Your task to perform on an android device: Go to CNN.com Image 0: 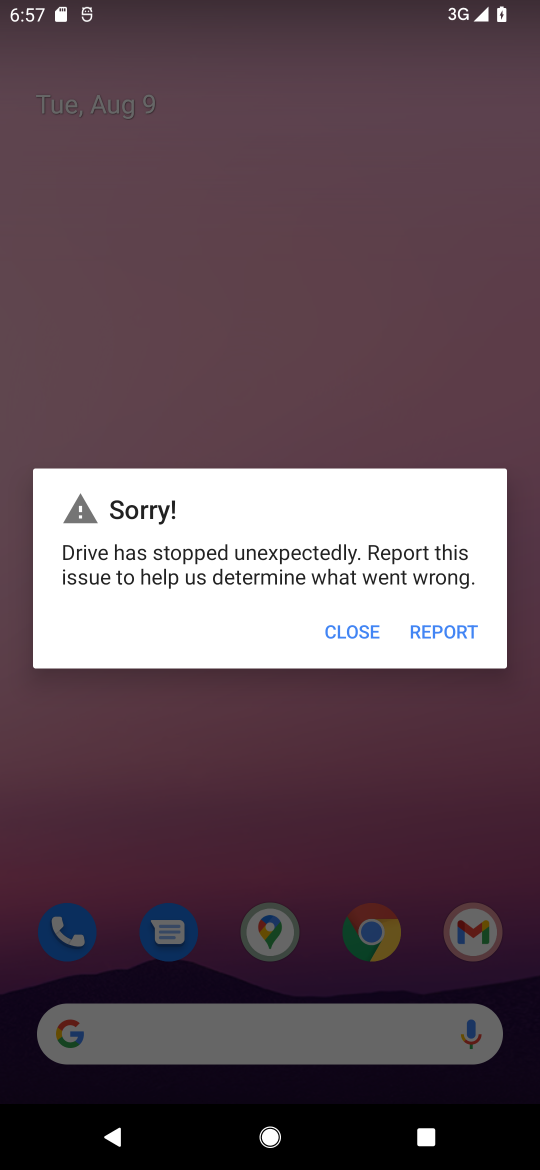
Step 0: click (367, 630)
Your task to perform on an android device: Go to CNN.com Image 1: 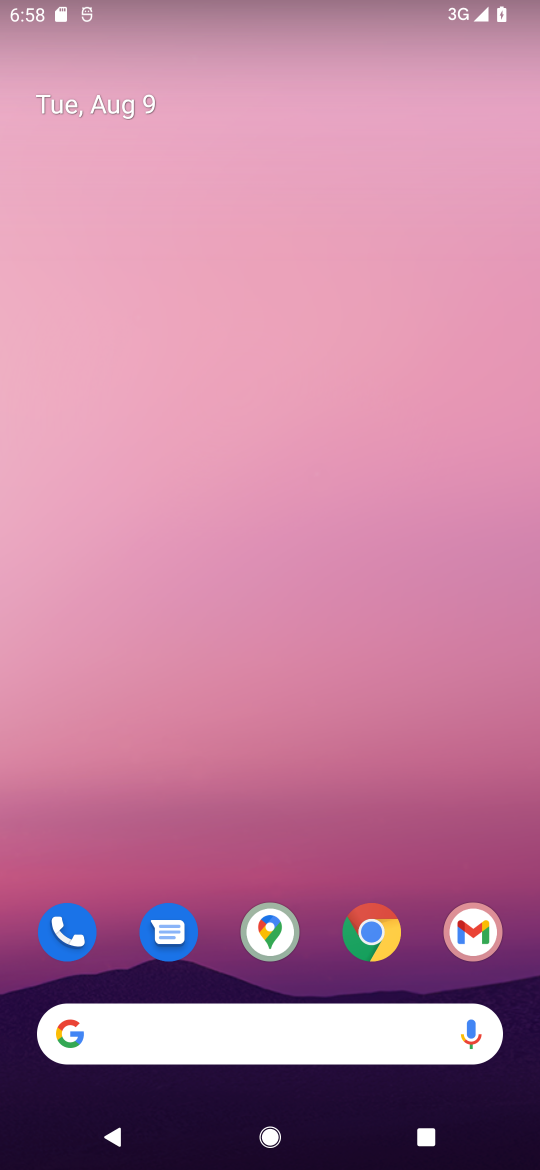
Step 1: click (376, 931)
Your task to perform on an android device: Go to CNN.com Image 2: 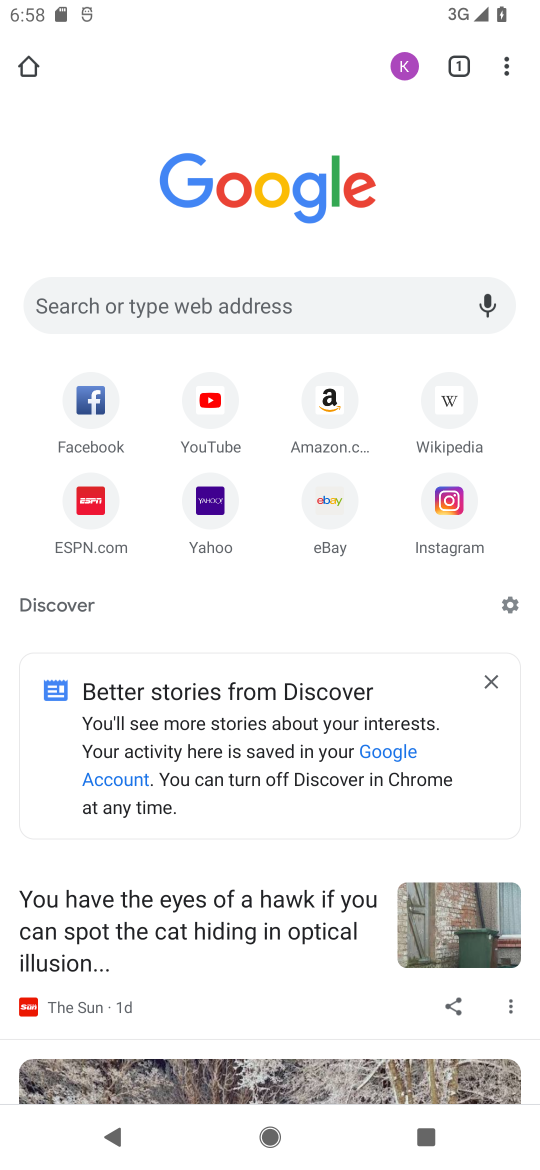
Step 2: click (234, 308)
Your task to perform on an android device: Go to CNN.com Image 3: 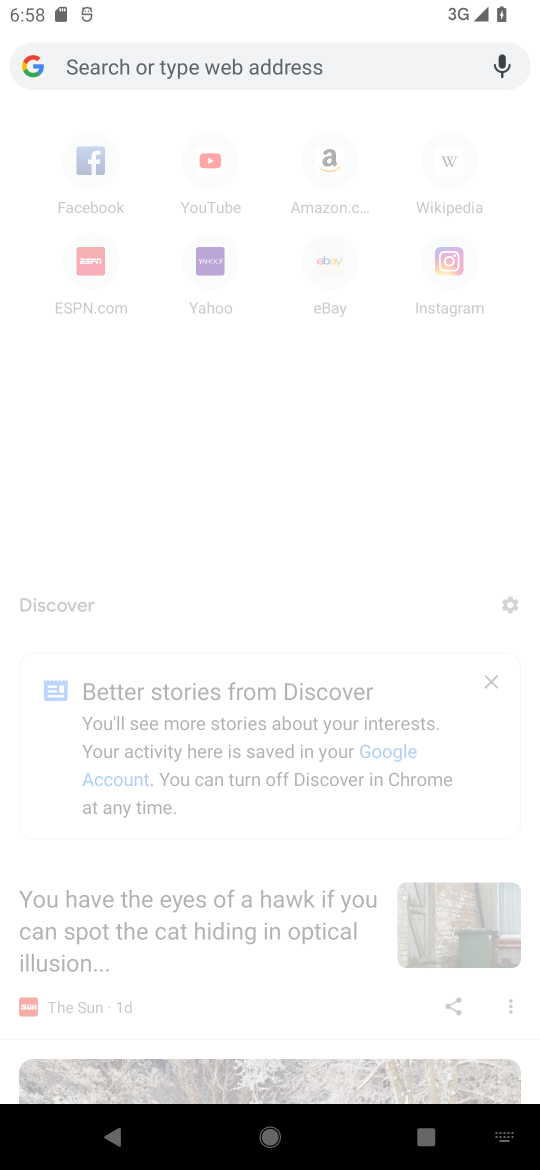
Step 3: type "cnn"
Your task to perform on an android device: Go to CNN.com Image 4: 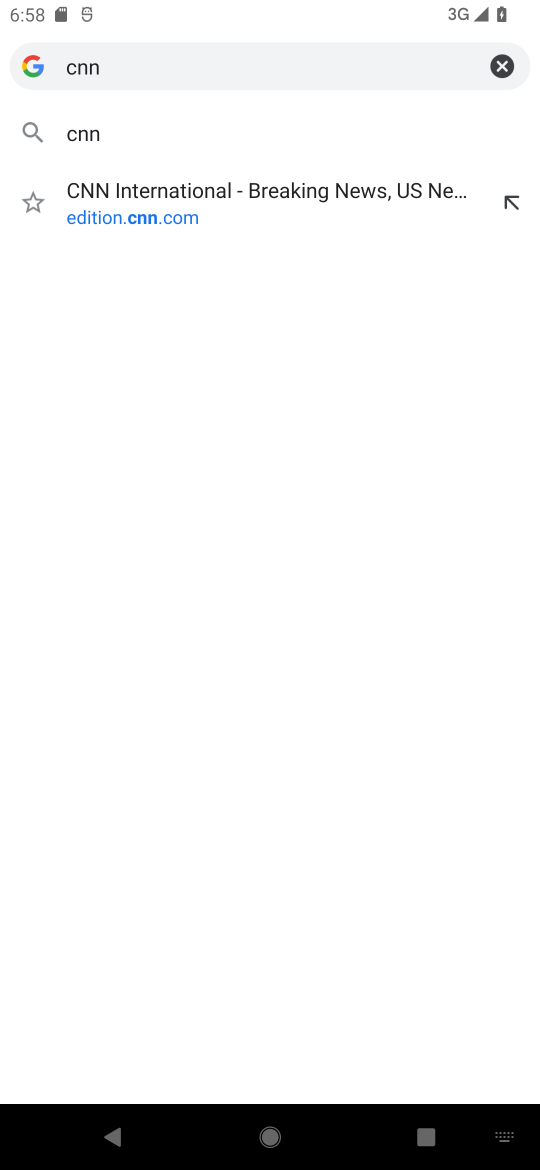
Step 4: click (316, 214)
Your task to perform on an android device: Go to CNN.com Image 5: 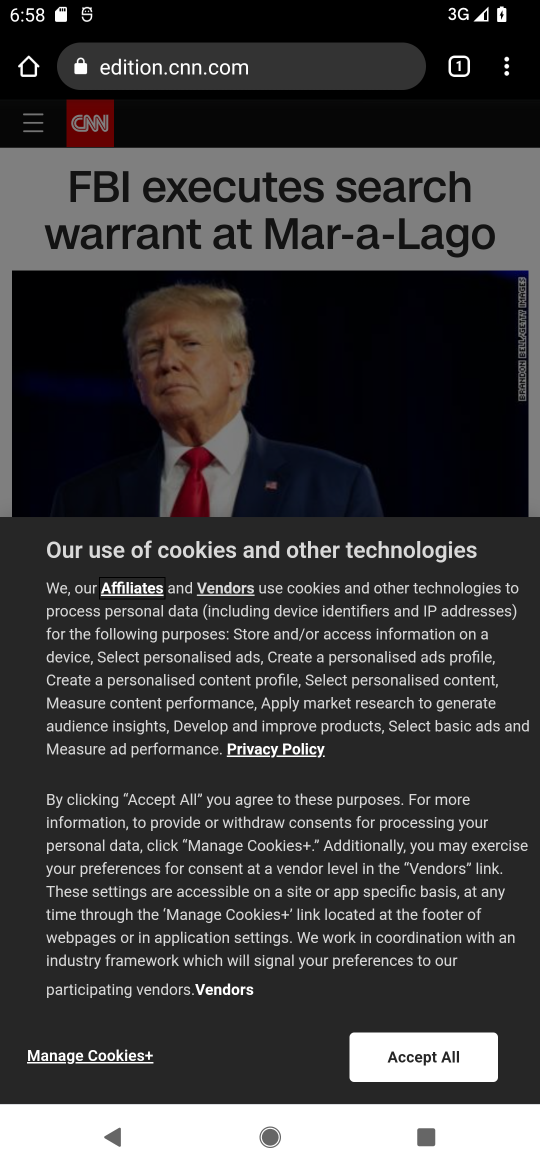
Step 5: task complete